Your task to perform on an android device: toggle improve location accuracy Image 0: 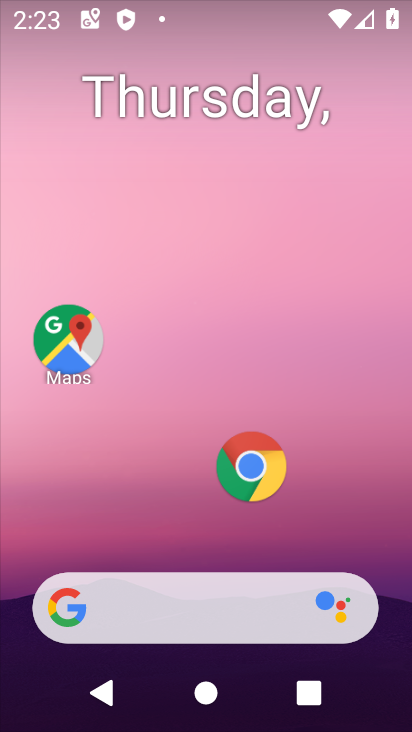
Step 0: drag from (207, 536) to (207, 160)
Your task to perform on an android device: toggle improve location accuracy Image 1: 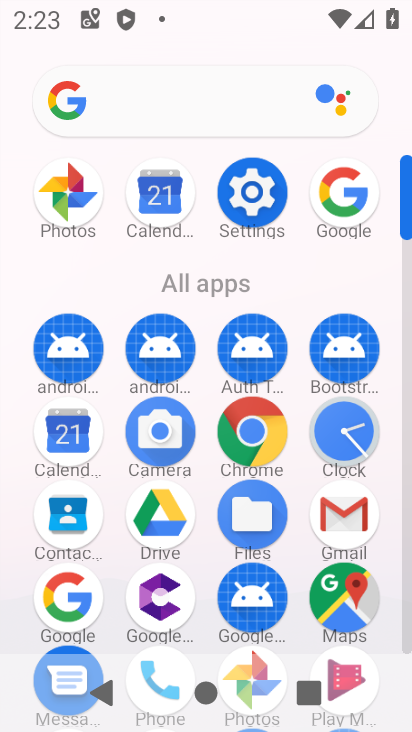
Step 1: click (261, 188)
Your task to perform on an android device: toggle improve location accuracy Image 2: 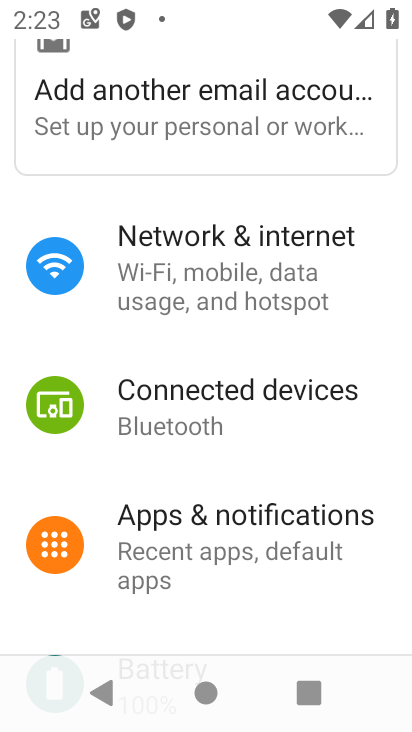
Step 2: drag from (230, 573) to (235, 178)
Your task to perform on an android device: toggle improve location accuracy Image 3: 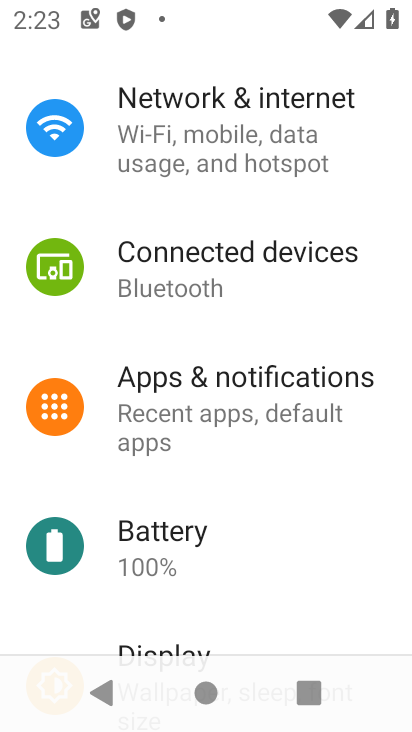
Step 3: drag from (235, 481) to (262, 181)
Your task to perform on an android device: toggle improve location accuracy Image 4: 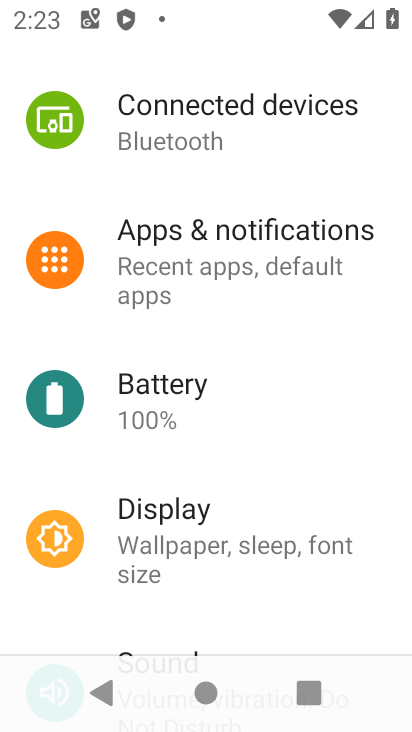
Step 4: drag from (221, 512) to (245, 278)
Your task to perform on an android device: toggle improve location accuracy Image 5: 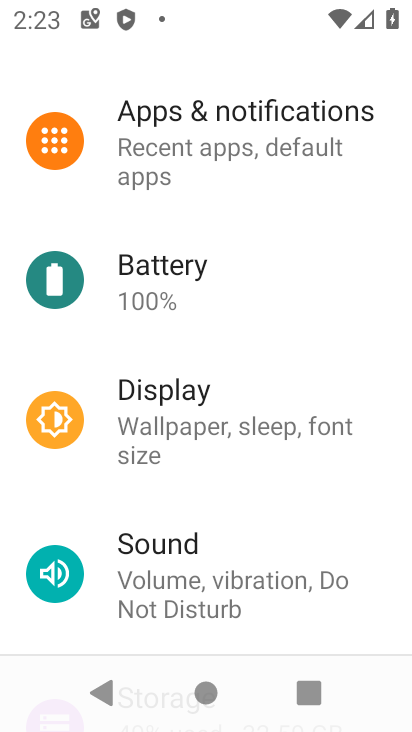
Step 5: drag from (209, 555) to (245, 313)
Your task to perform on an android device: toggle improve location accuracy Image 6: 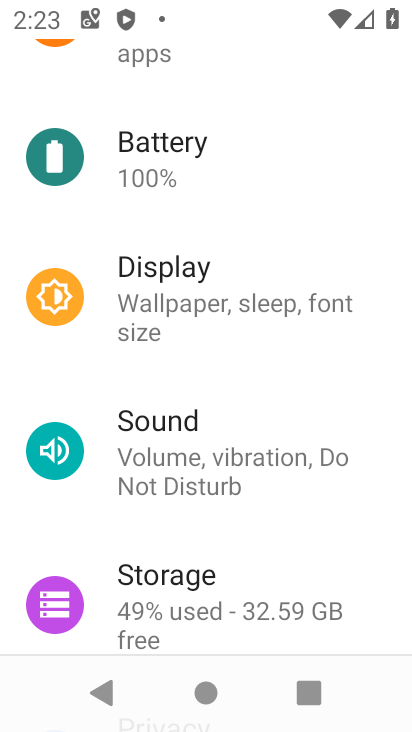
Step 6: drag from (249, 509) to (268, 309)
Your task to perform on an android device: toggle improve location accuracy Image 7: 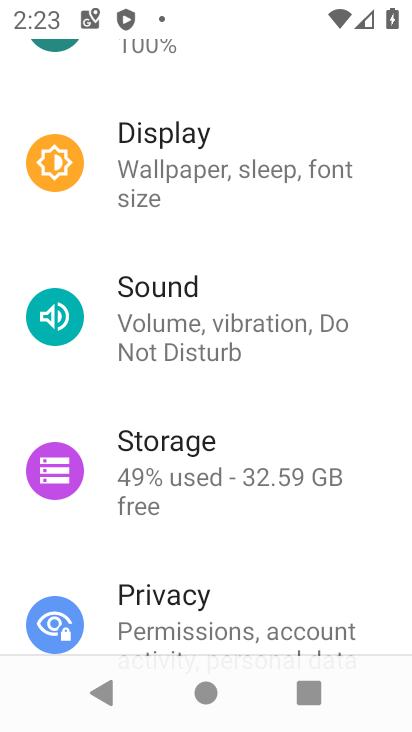
Step 7: drag from (264, 438) to (301, 138)
Your task to perform on an android device: toggle improve location accuracy Image 8: 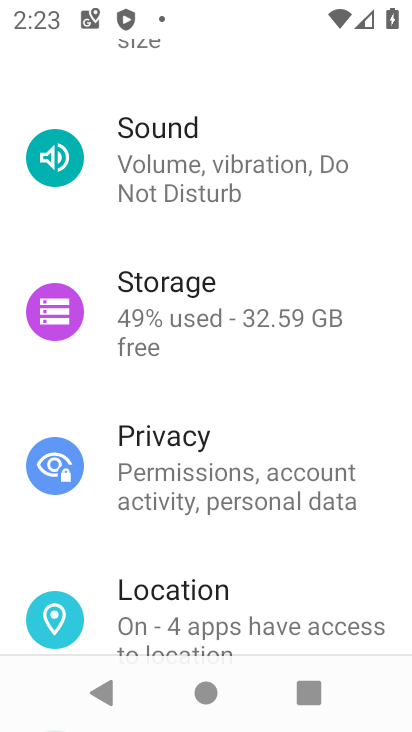
Step 8: click (249, 585)
Your task to perform on an android device: toggle improve location accuracy Image 9: 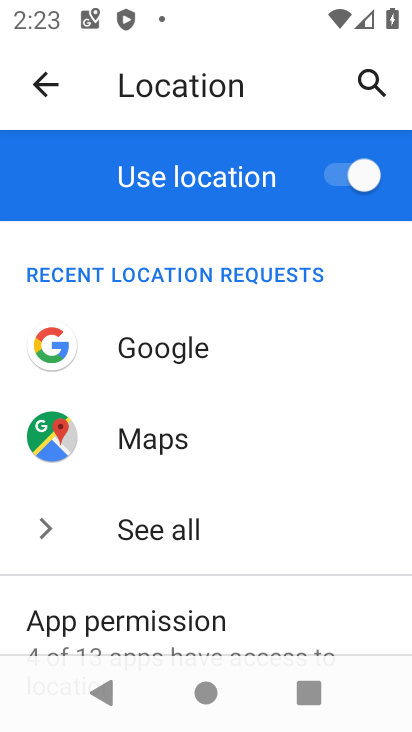
Step 9: drag from (259, 600) to (274, 385)
Your task to perform on an android device: toggle improve location accuracy Image 10: 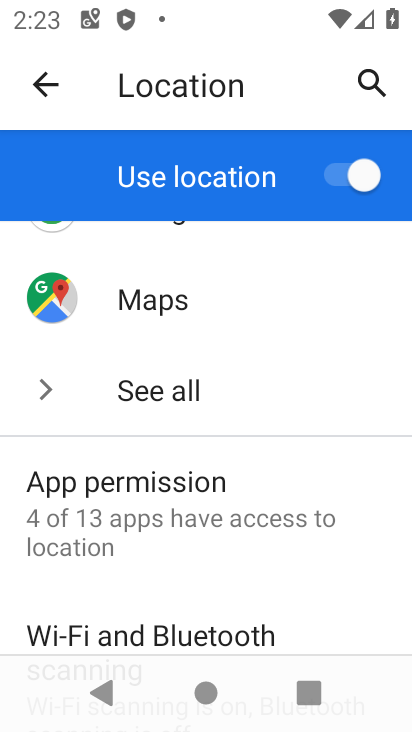
Step 10: drag from (269, 621) to (282, 337)
Your task to perform on an android device: toggle improve location accuracy Image 11: 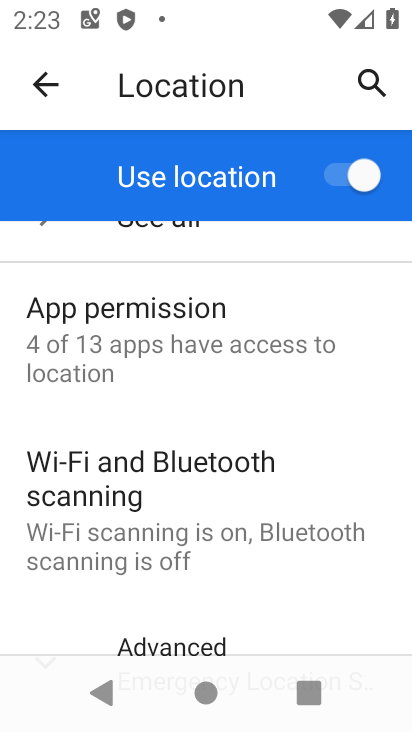
Step 11: drag from (263, 540) to (294, 304)
Your task to perform on an android device: toggle improve location accuracy Image 12: 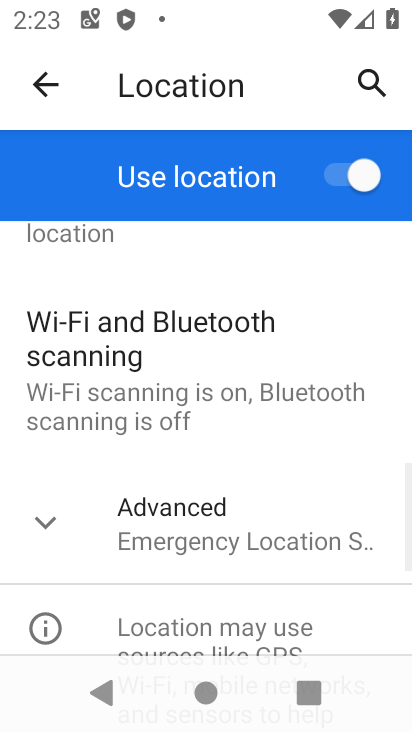
Step 12: click (246, 555)
Your task to perform on an android device: toggle improve location accuracy Image 13: 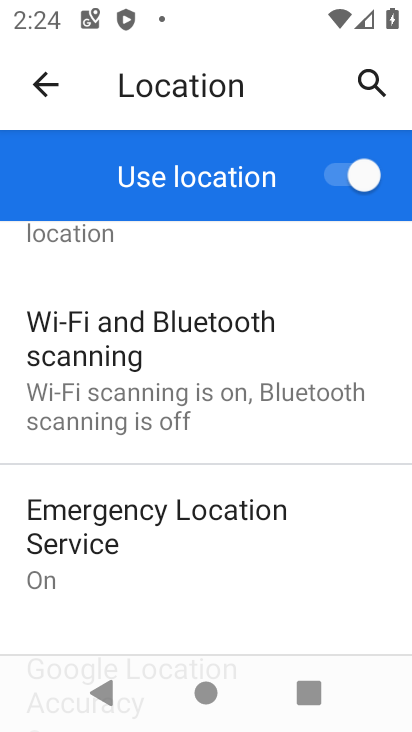
Step 13: drag from (242, 587) to (263, 346)
Your task to perform on an android device: toggle improve location accuracy Image 14: 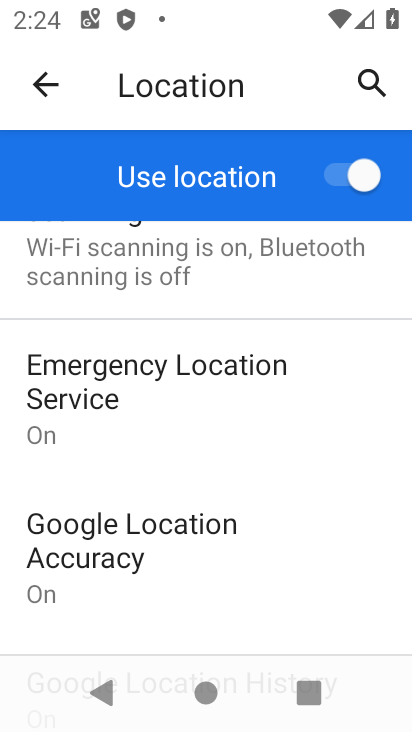
Step 14: click (198, 518)
Your task to perform on an android device: toggle improve location accuracy Image 15: 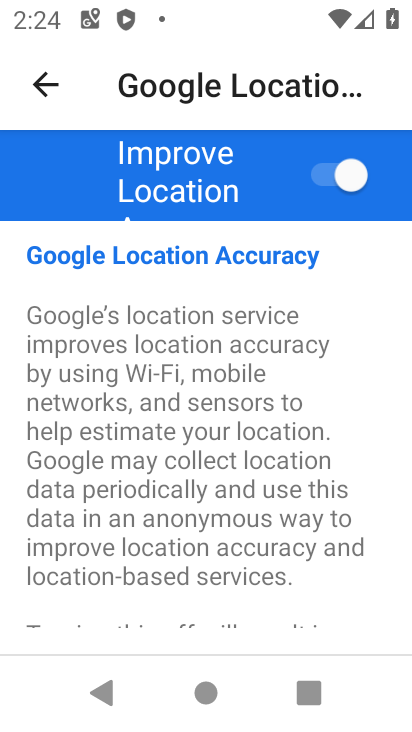
Step 15: click (332, 179)
Your task to perform on an android device: toggle improve location accuracy Image 16: 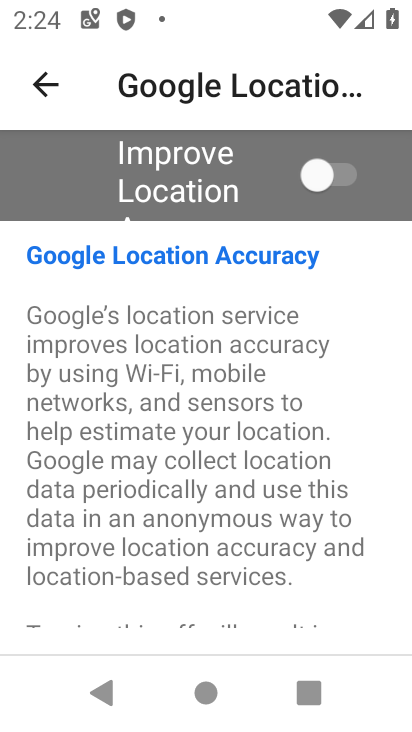
Step 16: task complete